Your task to perform on an android device: Show me popular games on the Play Store Image 0: 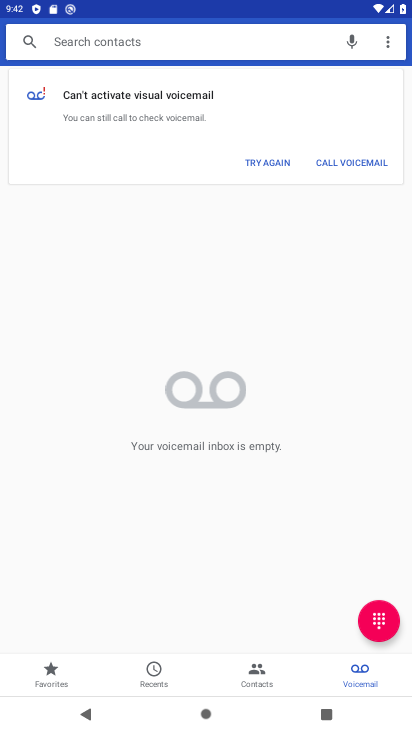
Step 0: press home button
Your task to perform on an android device: Show me popular games on the Play Store Image 1: 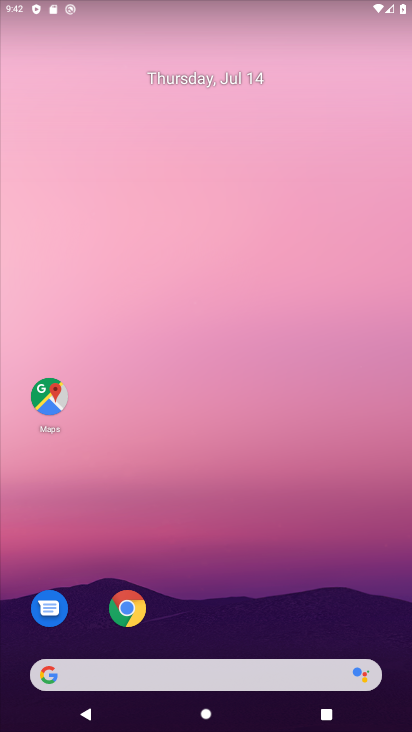
Step 1: drag from (297, 576) to (279, 24)
Your task to perform on an android device: Show me popular games on the Play Store Image 2: 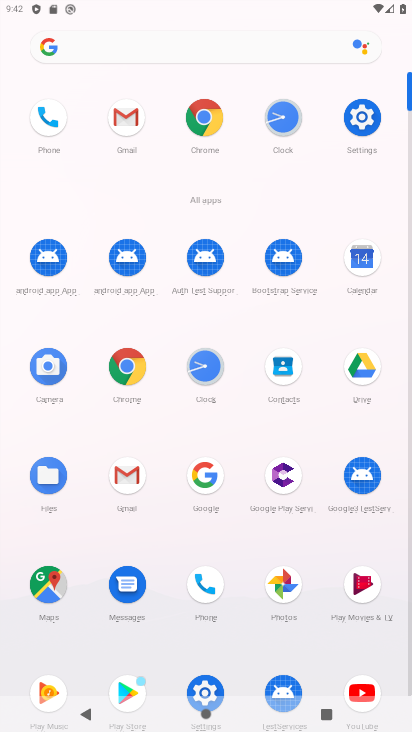
Step 2: click (128, 670)
Your task to perform on an android device: Show me popular games on the Play Store Image 3: 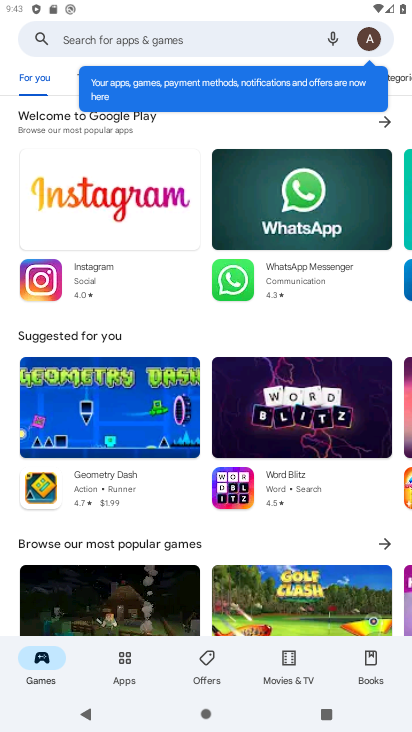
Step 3: click (63, 65)
Your task to perform on an android device: Show me popular games on the Play Store Image 4: 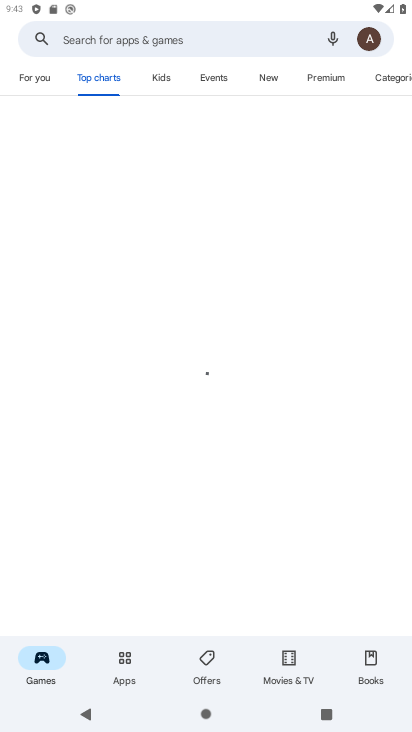
Step 4: click (73, 72)
Your task to perform on an android device: Show me popular games on the Play Store Image 5: 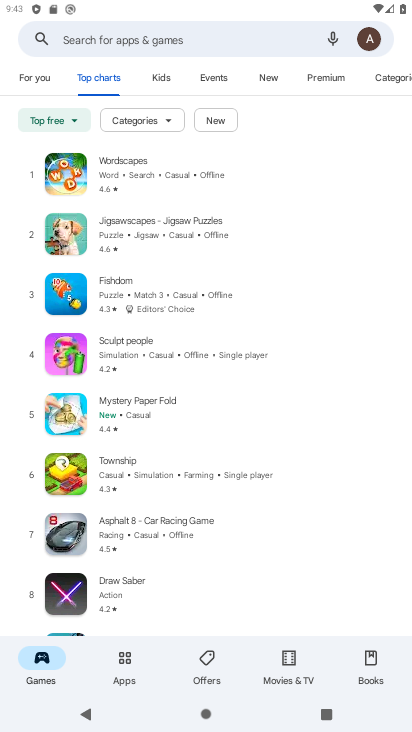
Step 5: task complete